Your task to perform on an android device: Search for a dining table on crateandbarrel.com Image 0: 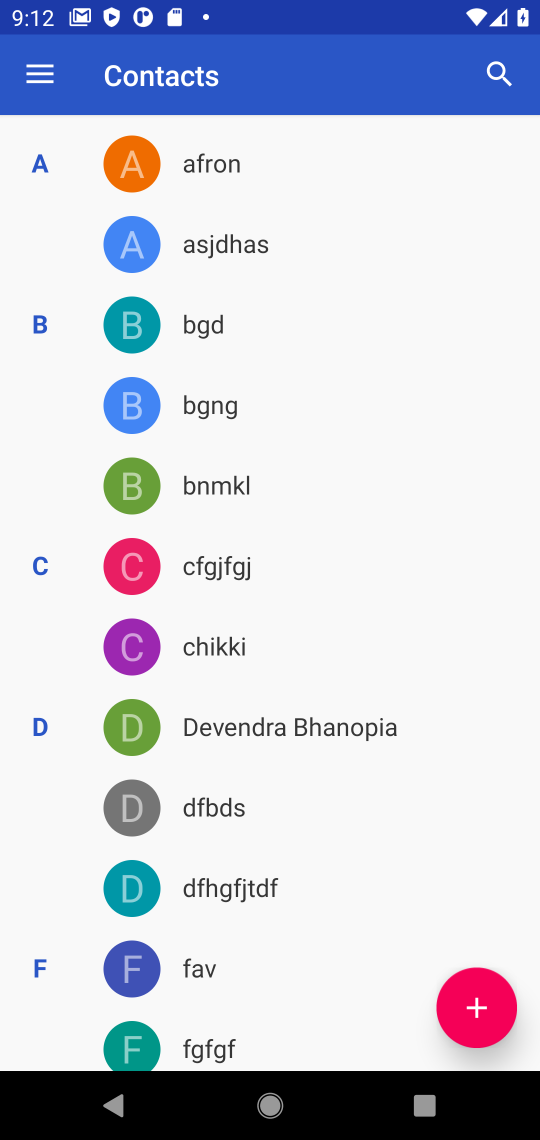
Step 0: press home button
Your task to perform on an android device: Search for a dining table on crateandbarrel.com Image 1: 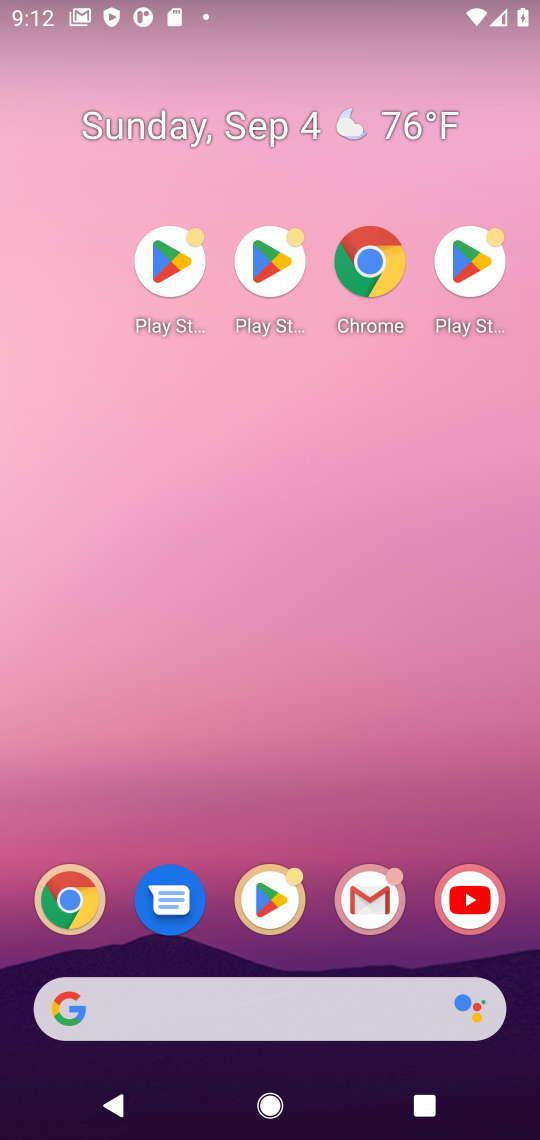
Step 1: click (86, 918)
Your task to perform on an android device: Search for a dining table on crateandbarrel.com Image 2: 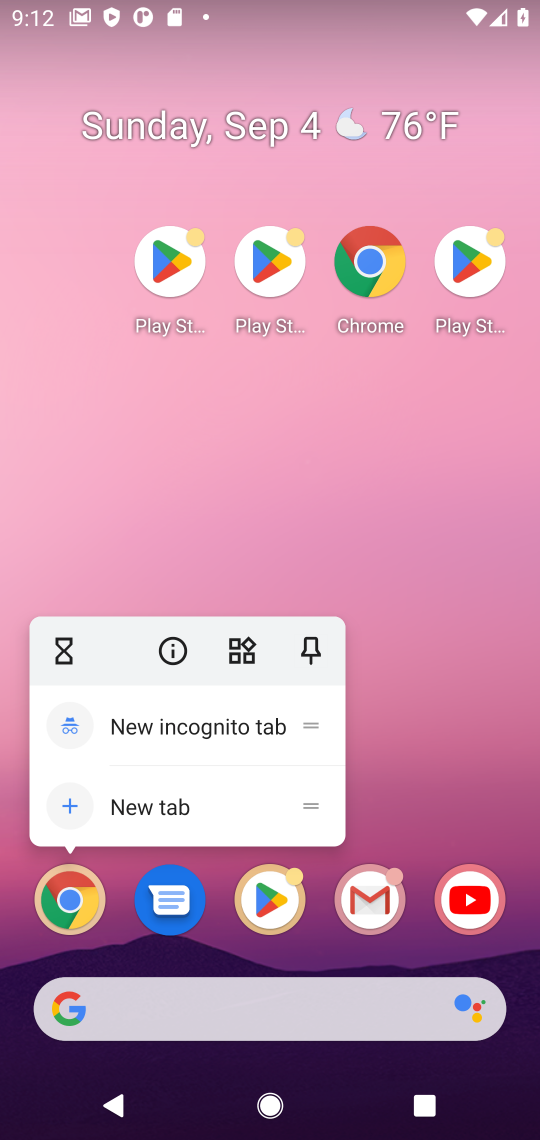
Step 2: click (79, 918)
Your task to perform on an android device: Search for a dining table on crateandbarrel.com Image 3: 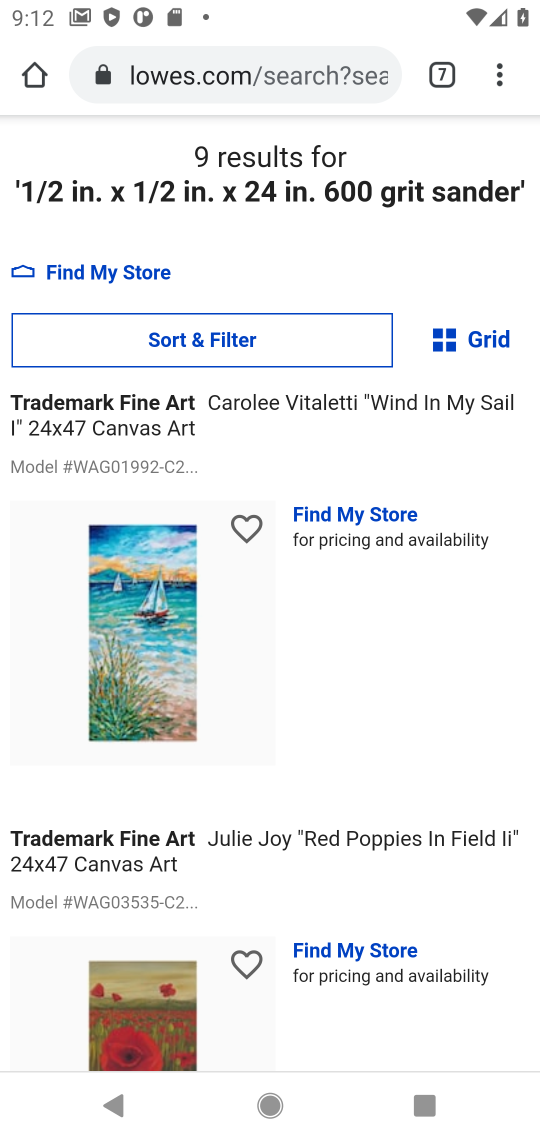
Step 3: click (444, 83)
Your task to perform on an android device: Search for a dining table on crateandbarrel.com Image 4: 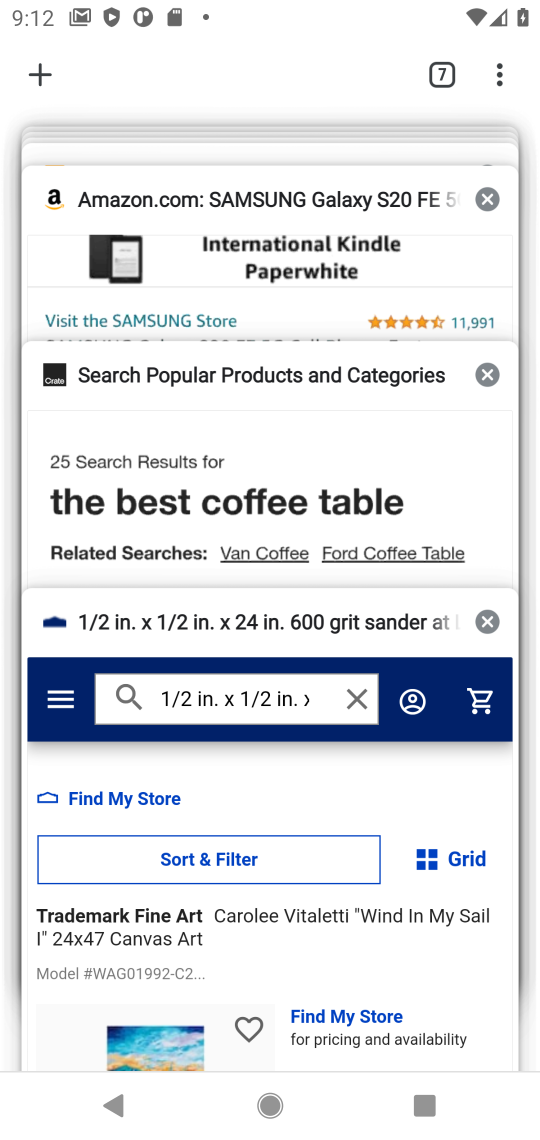
Step 4: click (44, 68)
Your task to perform on an android device: Search for a dining table on crateandbarrel.com Image 5: 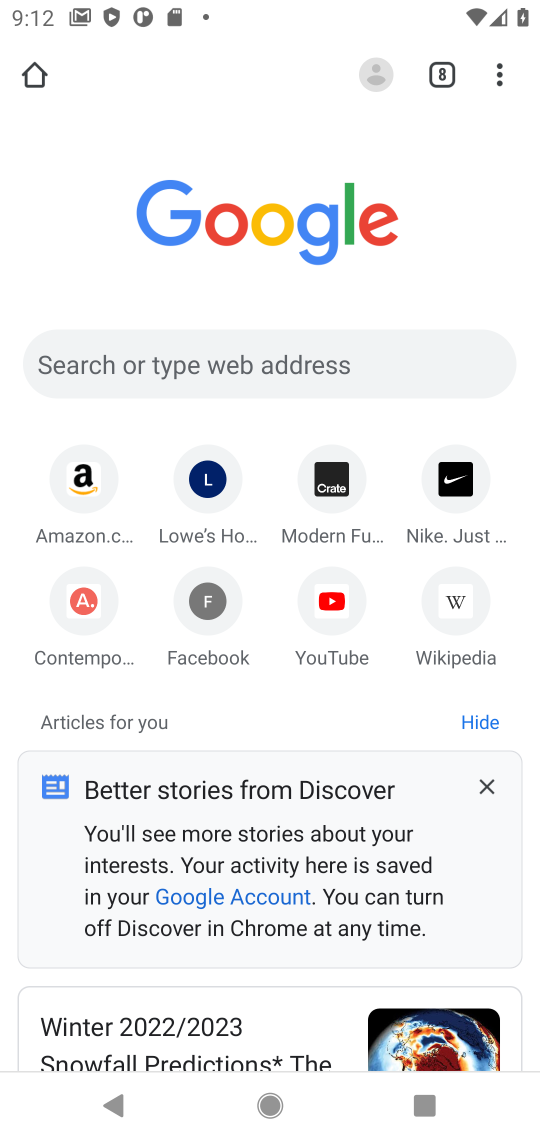
Step 5: click (189, 360)
Your task to perform on an android device: Search for a dining table on crateandbarrel.com Image 6: 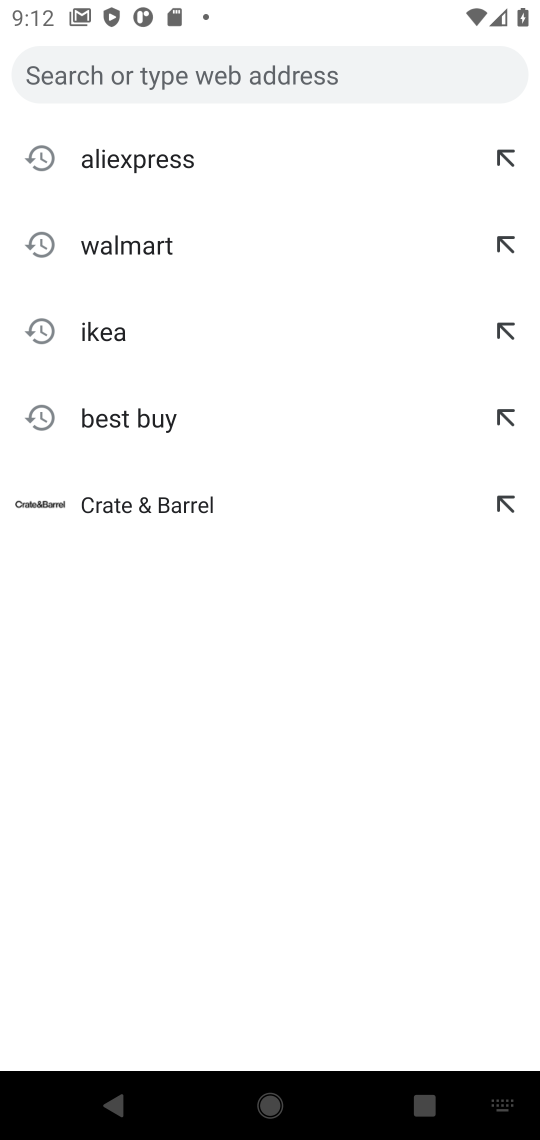
Step 6: type "crateandbarrel.com"
Your task to perform on an android device: Search for a dining table on crateandbarrel.com Image 7: 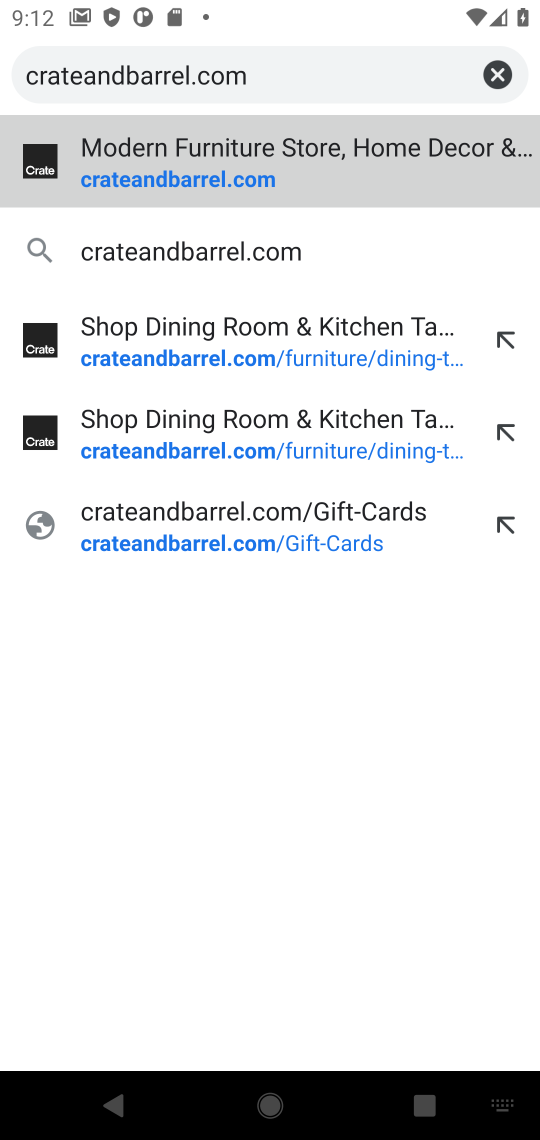
Step 7: click (124, 242)
Your task to perform on an android device: Search for a dining table on crateandbarrel.com Image 8: 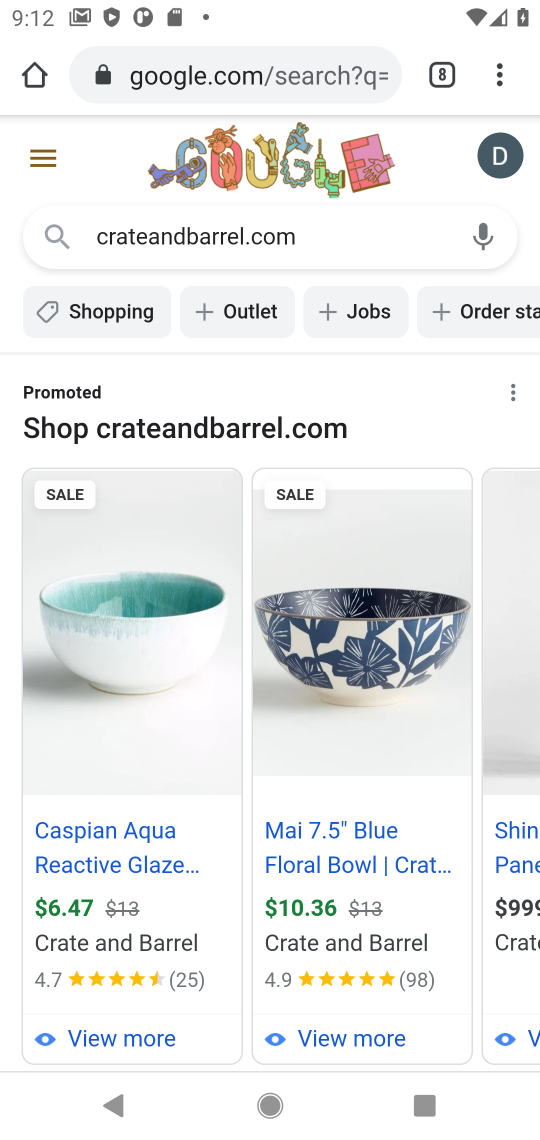
Step 8: drag from (296, 711) to (252, 39)
Your task to perform on an android device: Search for a dining table on crateandbarrel.com Image 9: 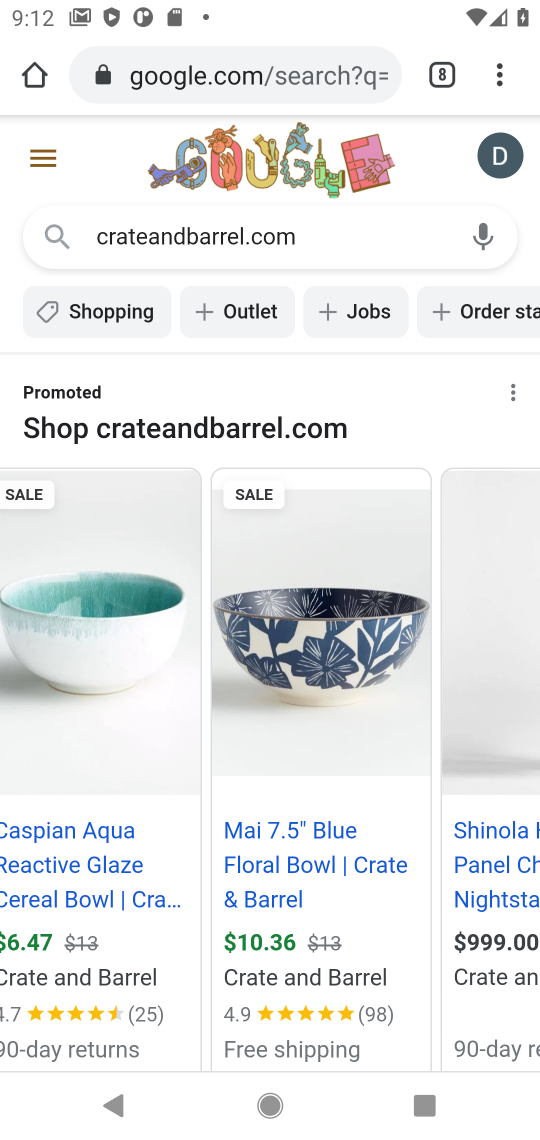
Step 9: drag from (203, 668) to (215, 46)
Your task to perform on an android device: Search for a dining table on crateandbarrel.com Image 10: 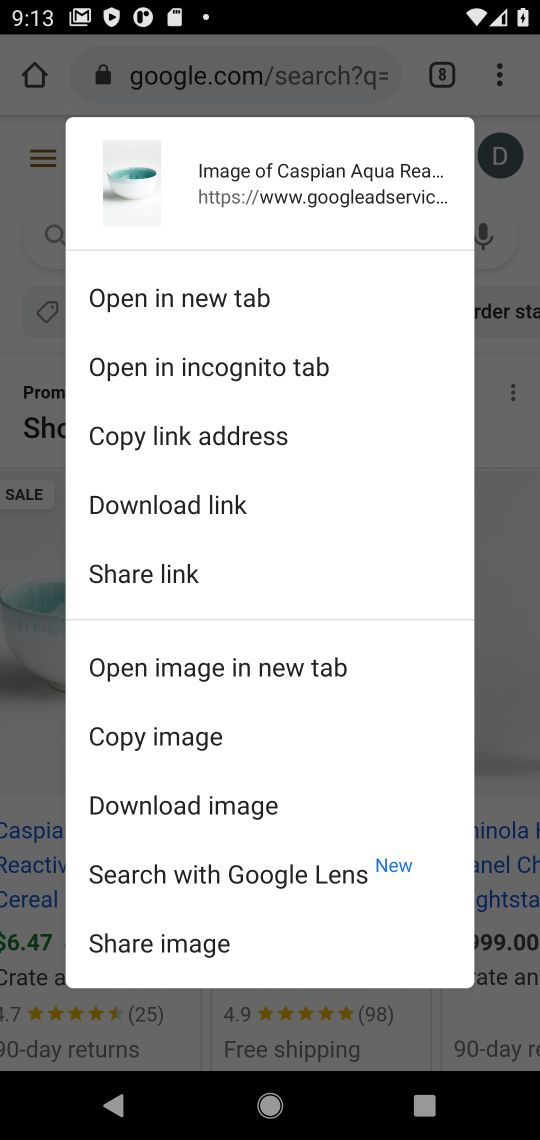
Step 10: click (527, 783)
Your task to perform on an android device: Search for a dining table on crateandbarrel.com Image 11: 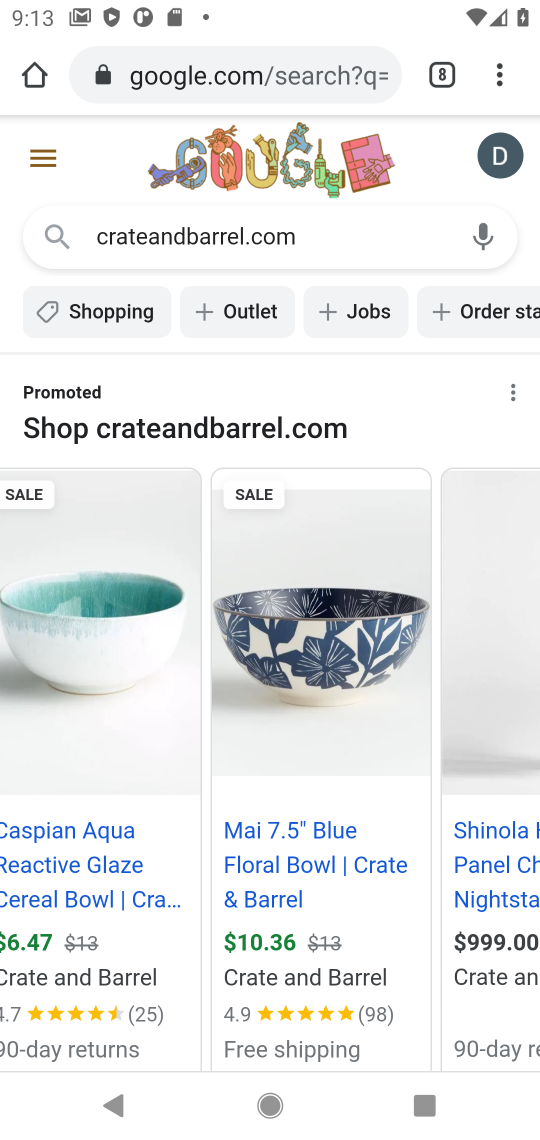
Step 11: drag from (461, 494) to (456, 74)
Your task to perform on an android device: Search for a dining table on crateandbarrel.com Image 12: 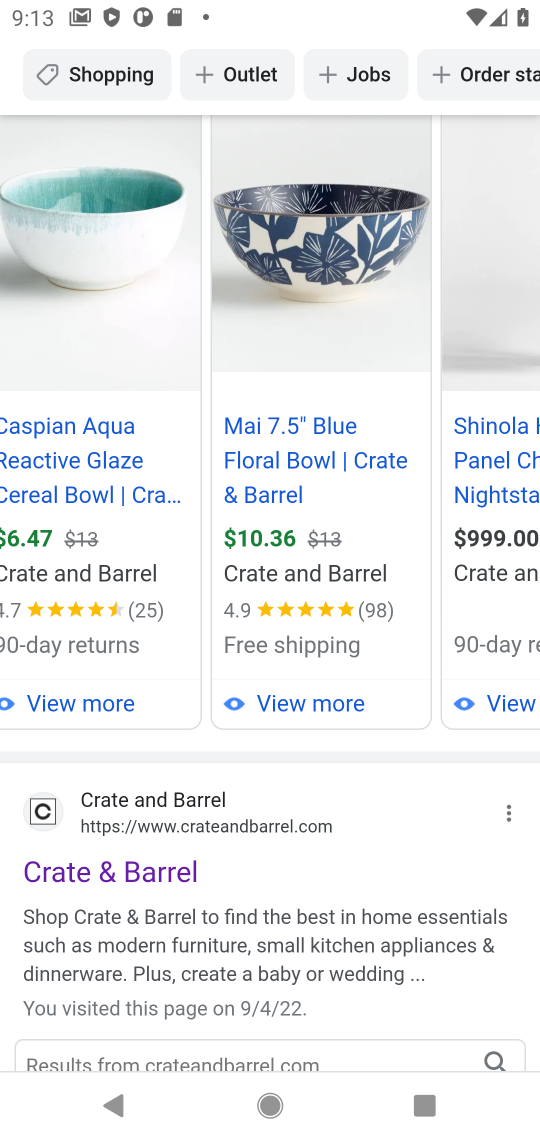
Step 12: click (108, 872)
Your task to perform on an android device: Search for a dining table on crateandbarrel.com Image 13: 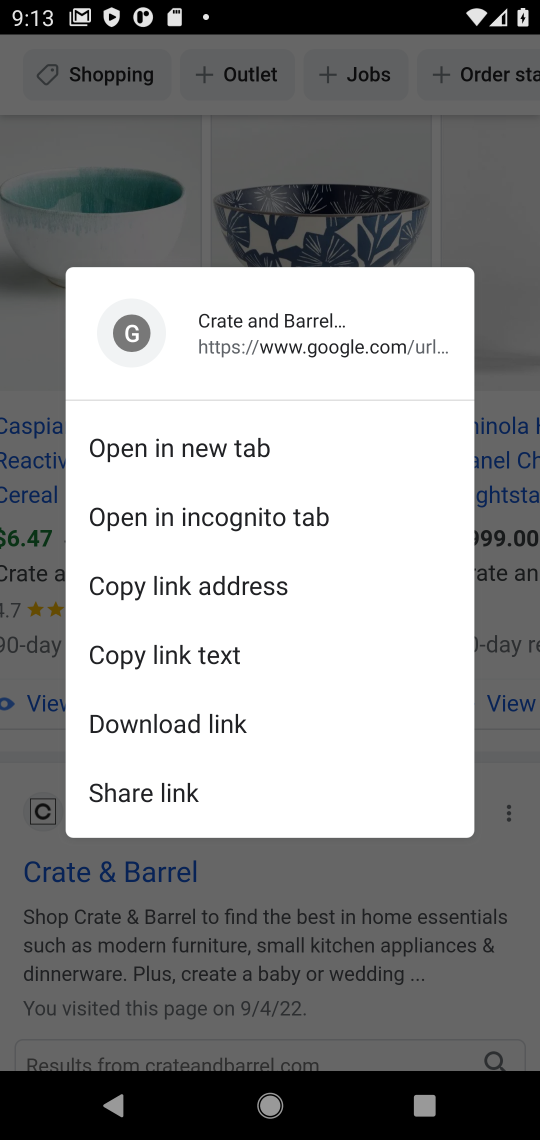
Step 13: click (104, 873)
Your task to perform on an android device: Search for a dining table on crateandbarrel.com Image 14: 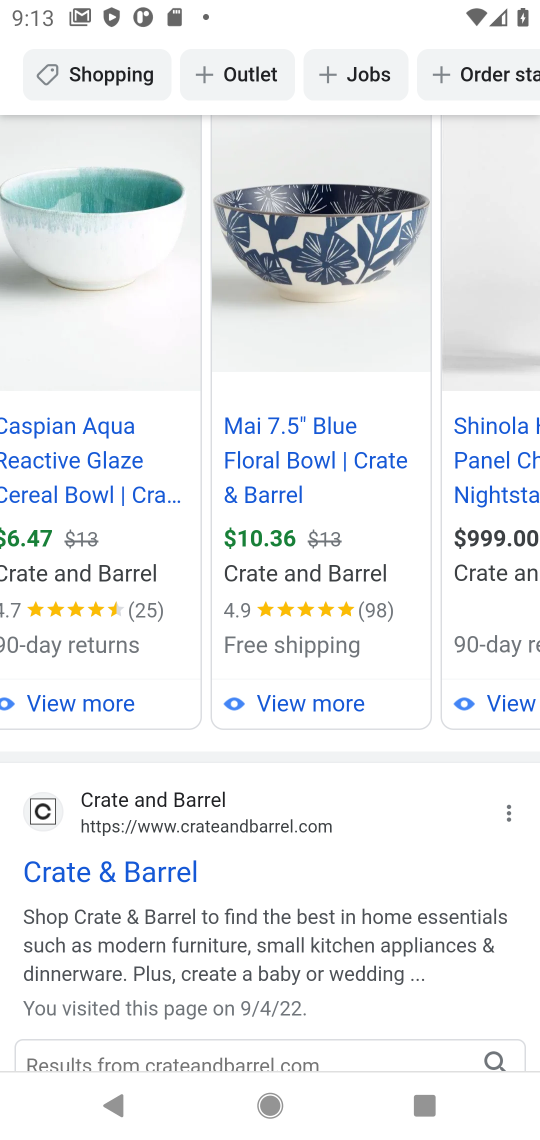
Step 14: click (107, 869)
Your task to perform on an android device: Search for a dining table on crateandbarrel.com Image 15: 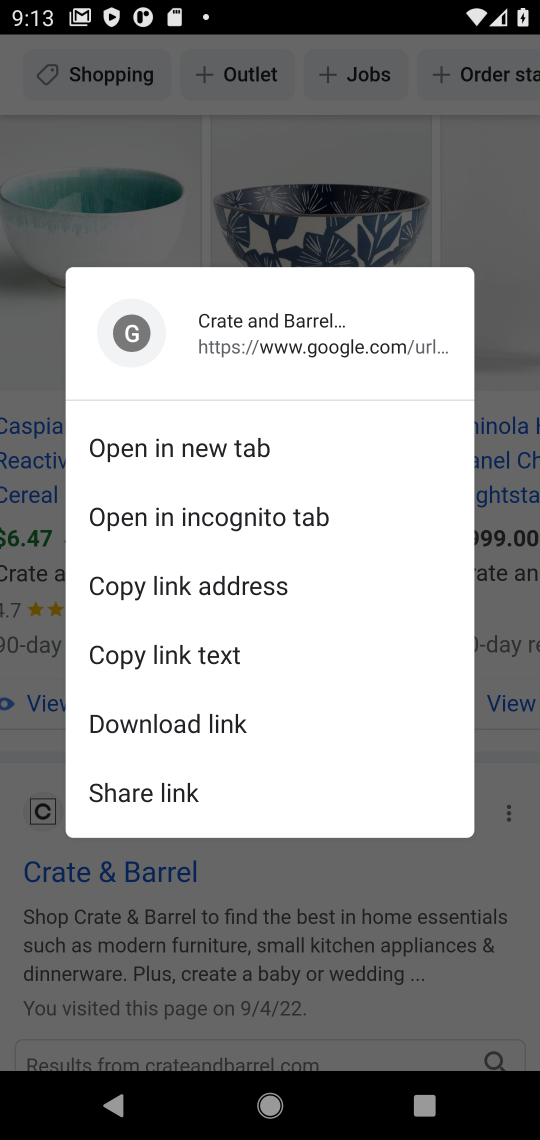
Step 15: click (126, 905)
Your task to perform on an android device: Search for a dining table on crateandbarrel.com Image 16: 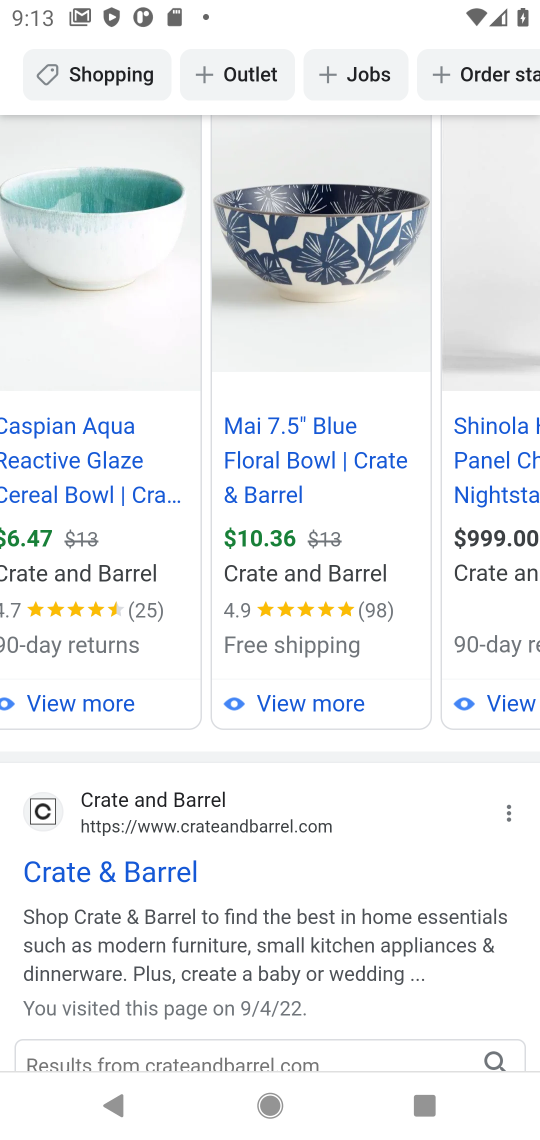
Step 16: click (145, 886)
Your task to perform on an android device: Search for a dining table on crateandbarrel.com Image 17: 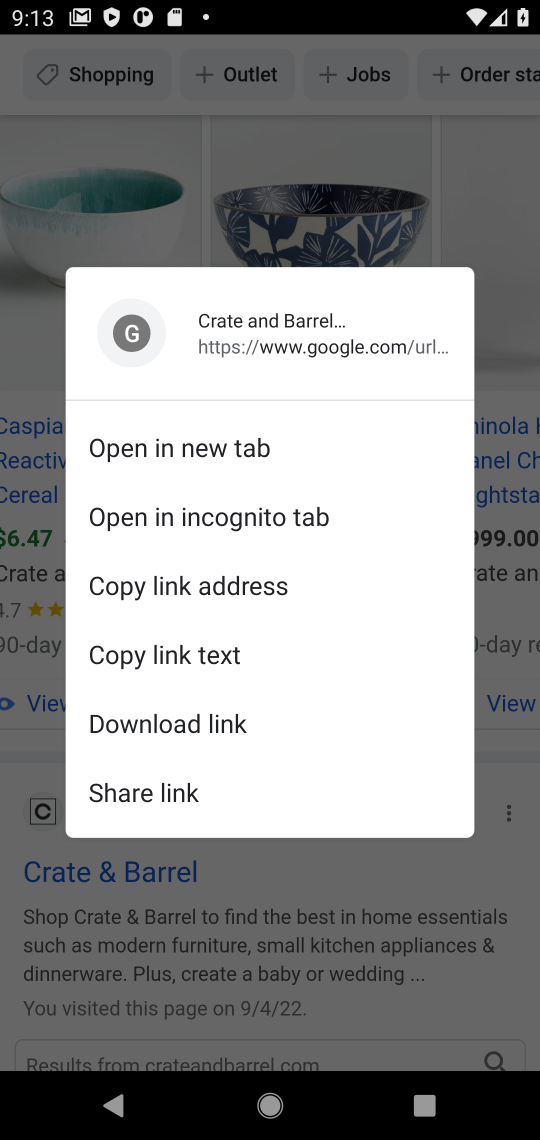
Step 17: click (126, 878)
Your task to perform on an android device: Search for a dining table on crateandbarrel.com Image 18: 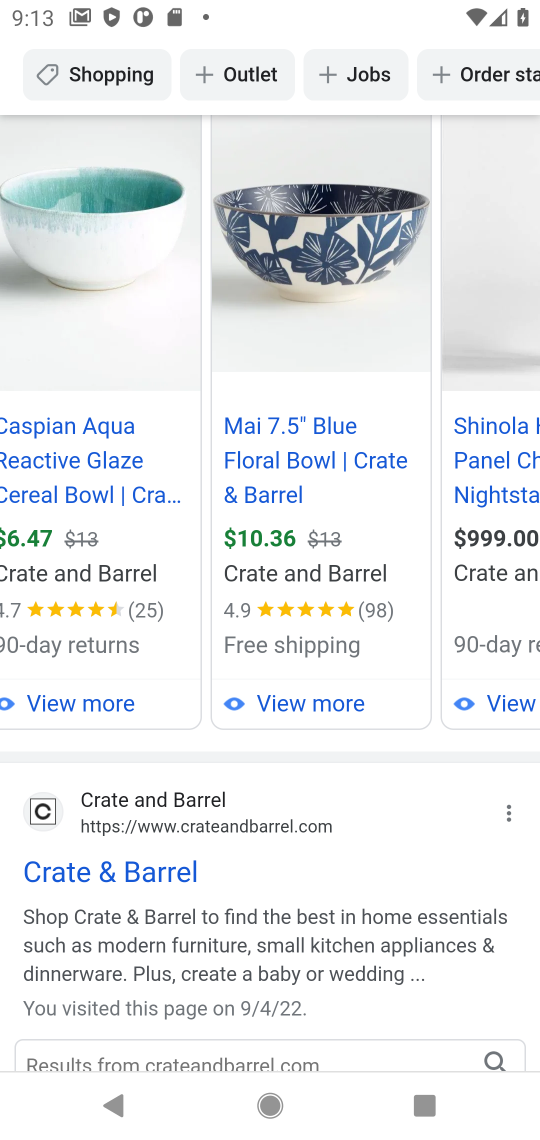
Step 18: click (128, 876)
Your task to perform on an android device: Search for a dining table on crateandbarrel.com Image 19: 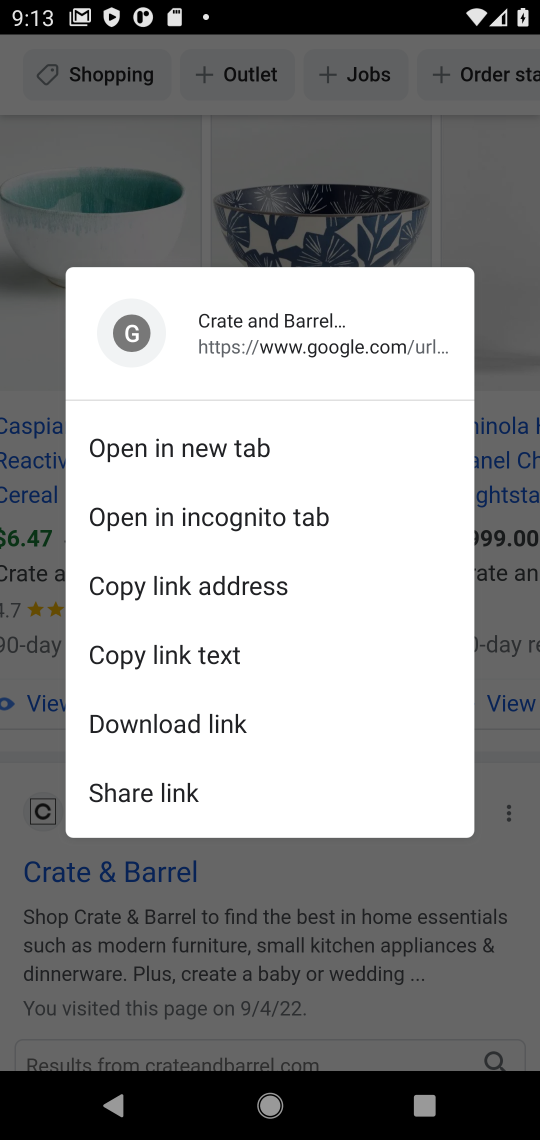
Step 19: click (17, 878)
Your task to perform on an android device: Search for a dining table on crateandbarrel.com Image 20: 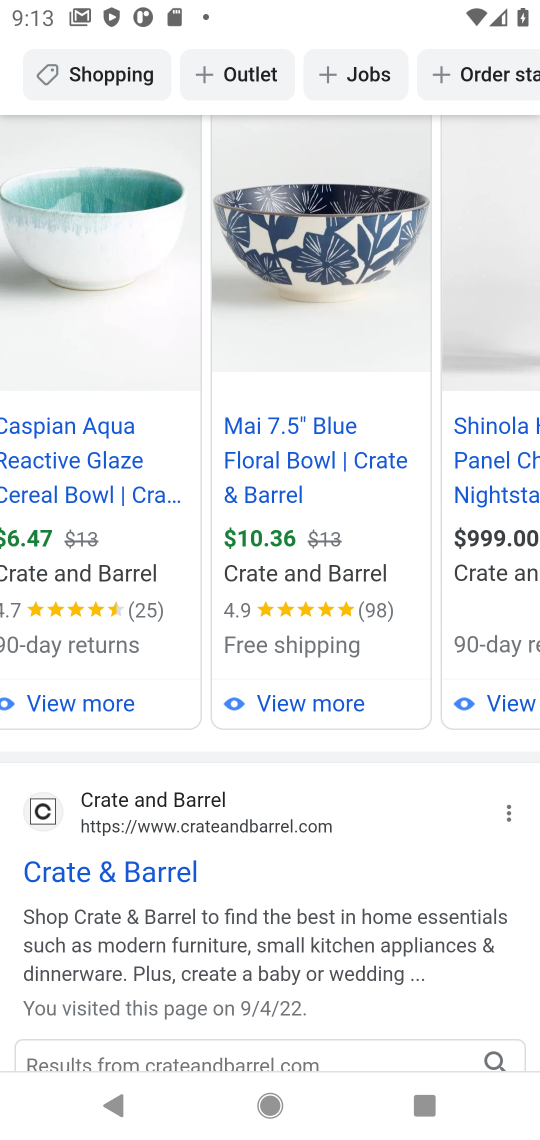
Step 20: click (24, 878)
Your task to perform on an android device: Search for a dining table on crateandbarrel.com Image 21: 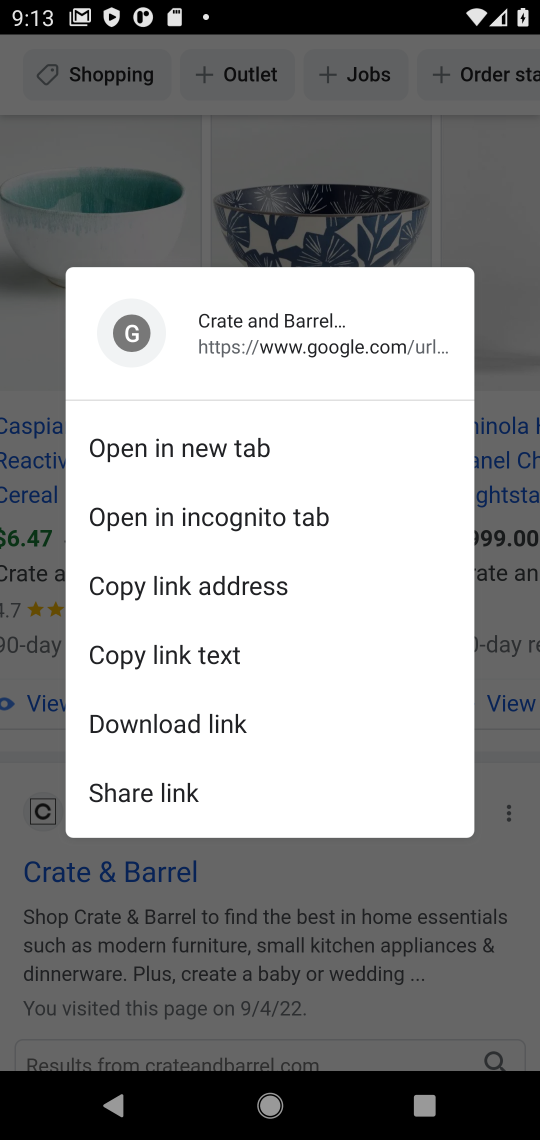
Step 21: click (418, 935)
Your task to perform on an android device: Search for a dining table on crateandbarrel.com Image 22: 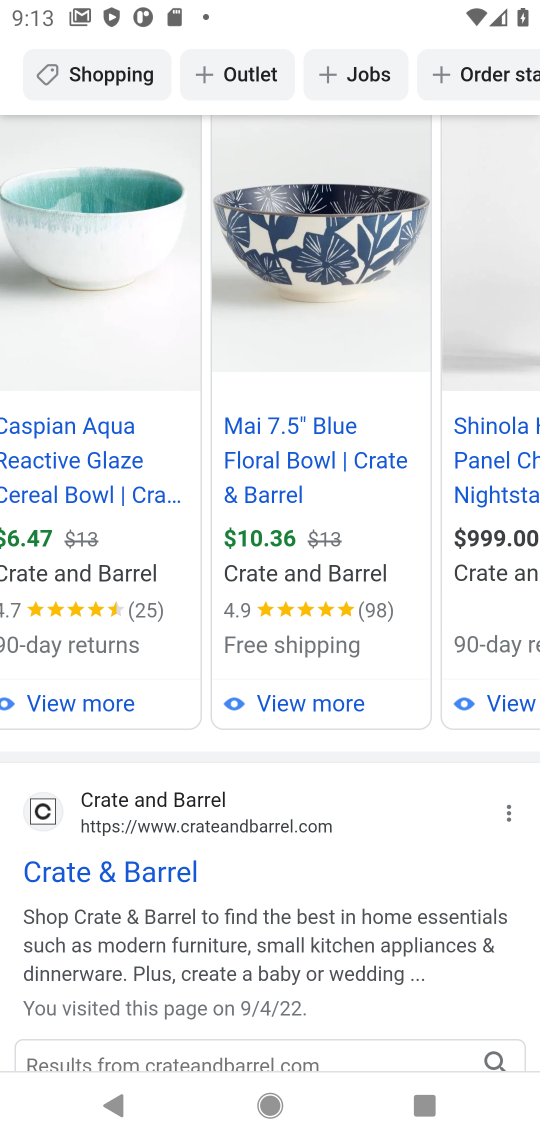
Step 22: click (140, 876)
Your task to perform on an android device: Search for a dining table on crateandbarrel.com Image 23: 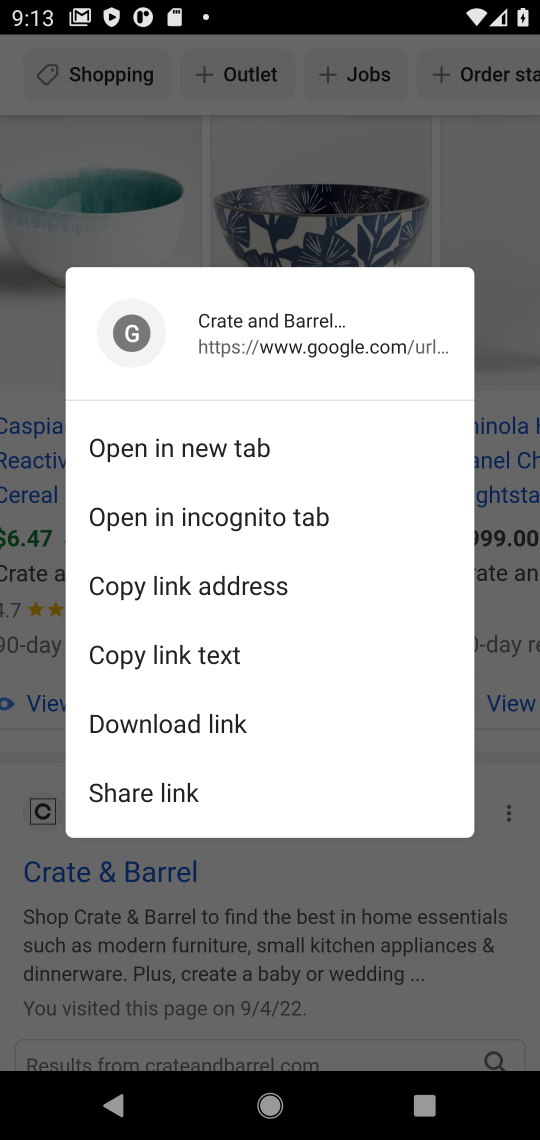
Step 23: click (53, 899)
Your task to perform on an android device: Search for a dining table on crateandbarrel.com Image 24: 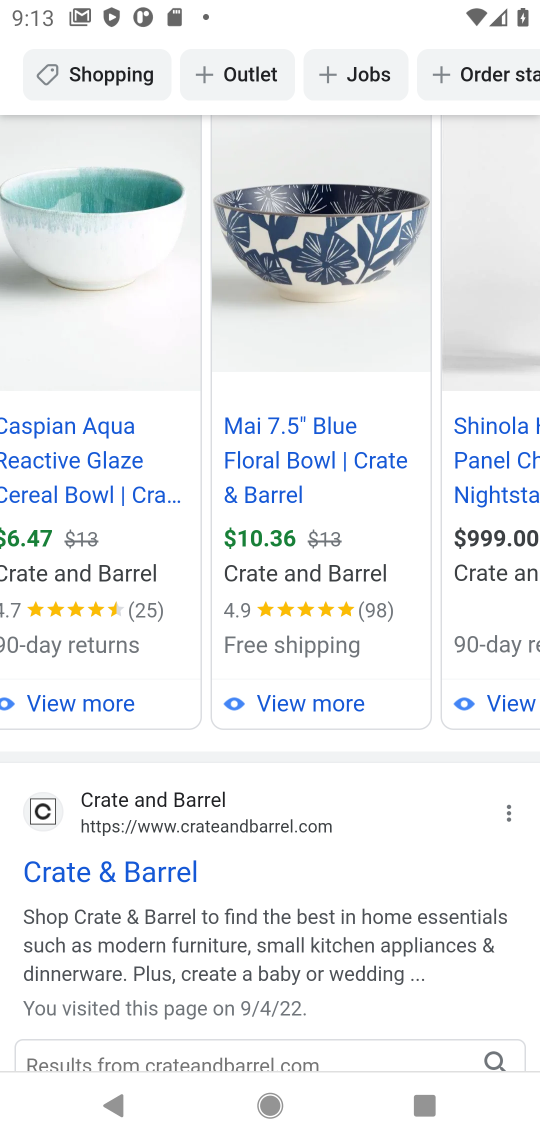
Step 24: click (53, 899)
Your task to perform on an android device: Search for a dining table on crateandbarrel.com Image 25: 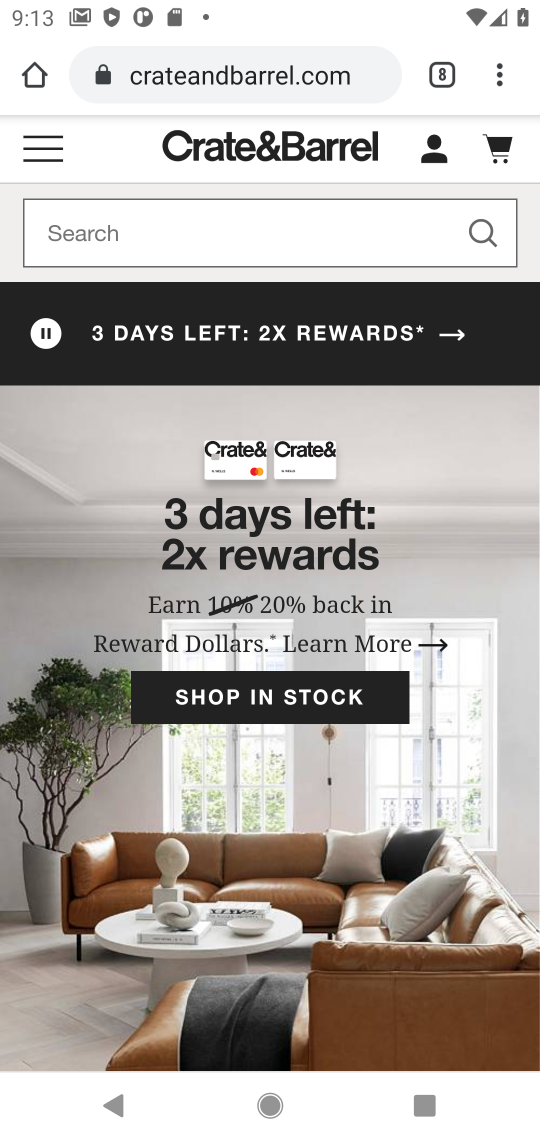
Step 25: click (315, 213)
Your task to perform on an android device: Search for a dining table on crateandbarrel.com Image 26: 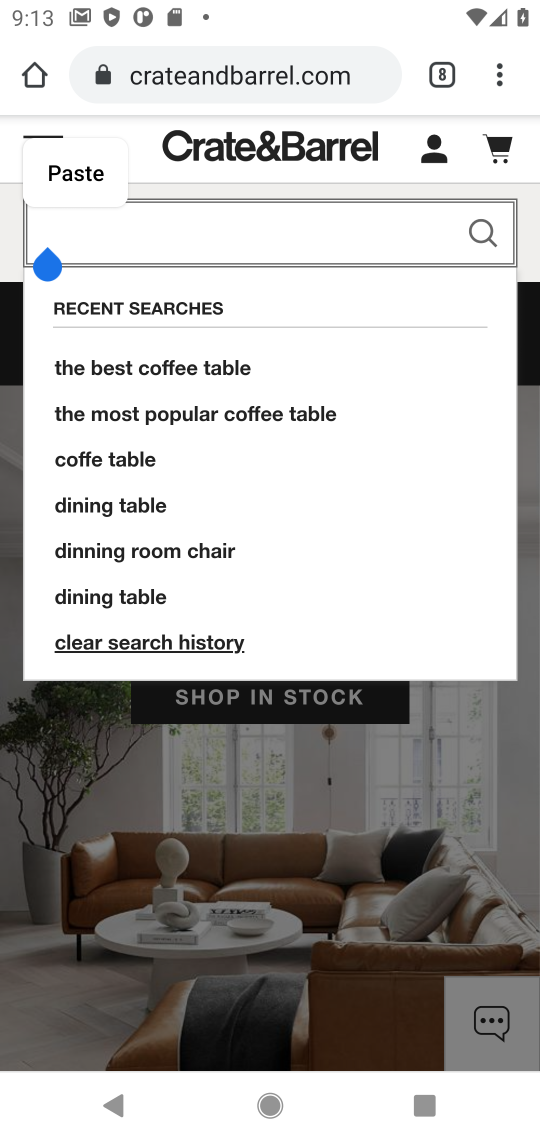
Step 26: click (112, 505)
Your task to perform on an android device: Search for a dining table on crateandbarrel.com Image 27: 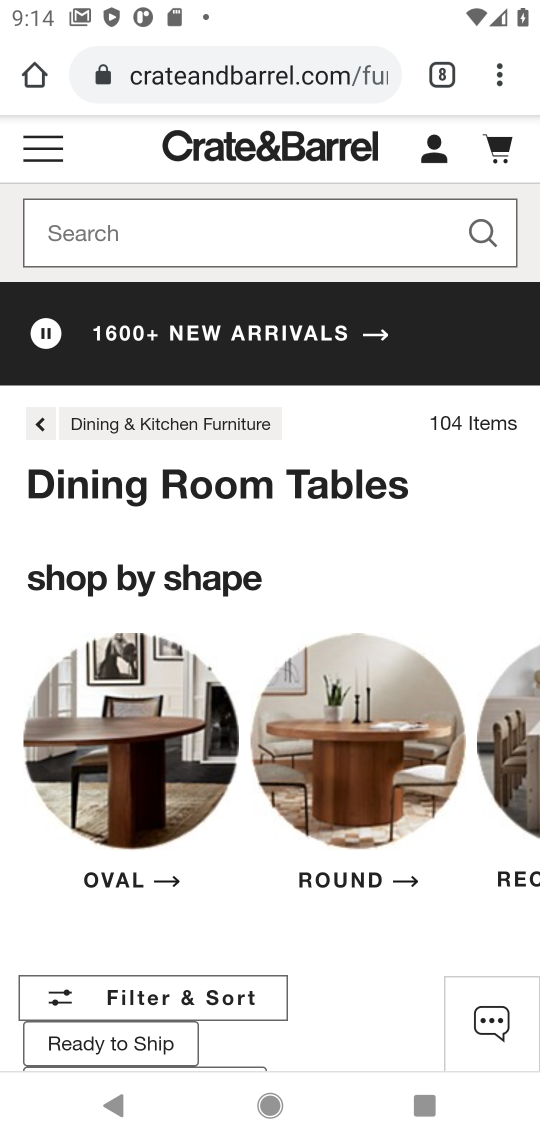
Step 27: task complete